Your task to perform on an android device: Do I have any events today? Image 0: 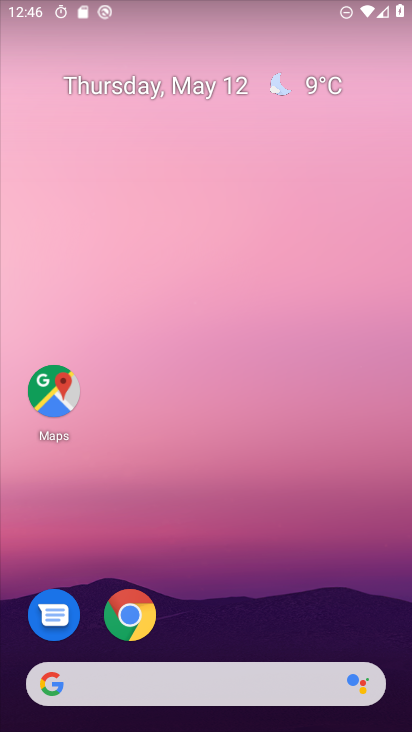
Step 0: drag from (269, 535) to (198, 36)
Your task to perform on an android device: Do I have any events today? Image 1: 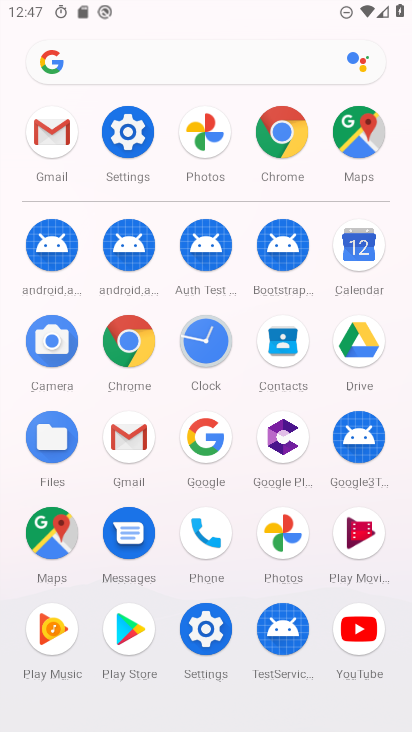
Step 1: click (366, 248)
Your task to perform on an android device: Do I have any events today? Image 2: 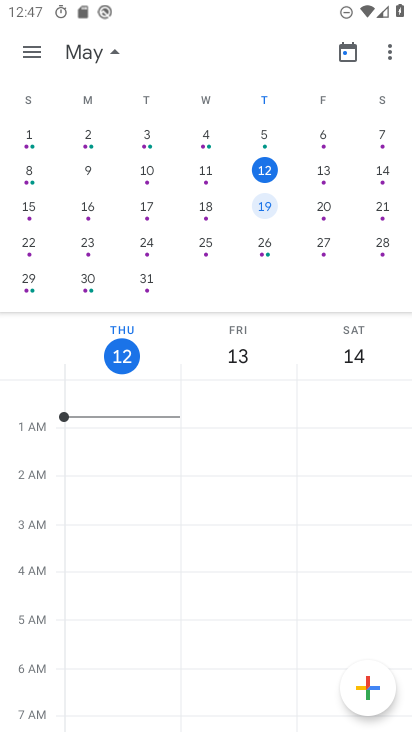
Step 2: task complete